Your task to perform on an android device: find which apps use the phone's location Image 0: 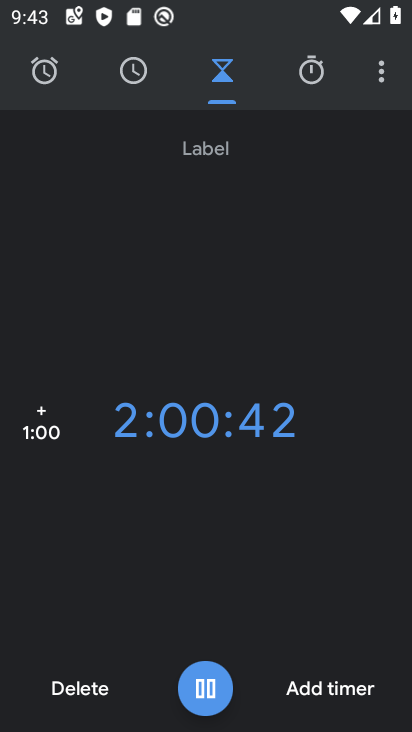
Step 0: press home button
Your task to perform on an android device: find which apps use the phone's location Image 1: 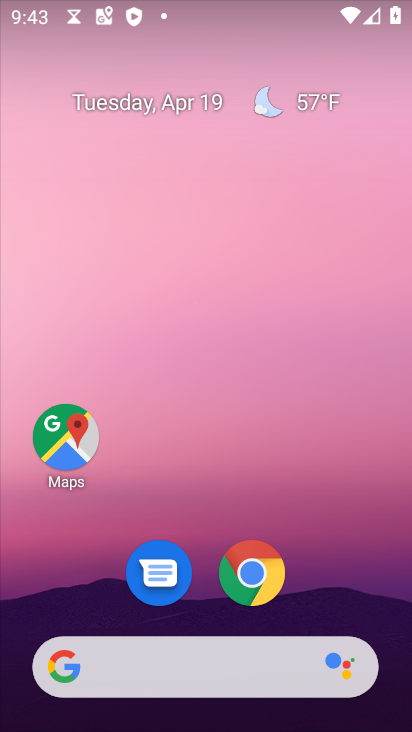
Step 1: drag from (314, 586) to (296, 62)
Your task to perform on an android device: find which apps use the phone's location Image 2: 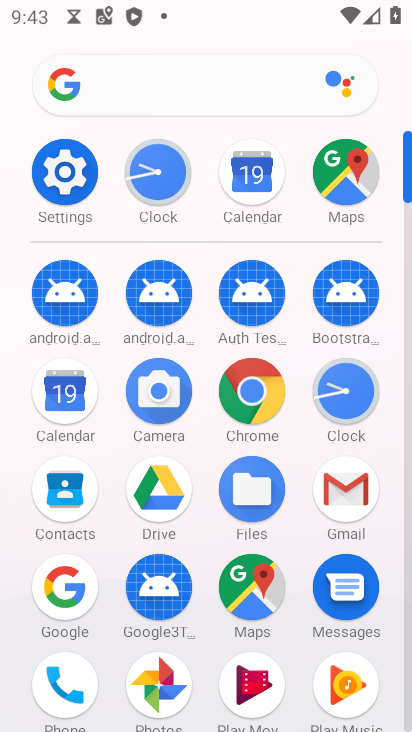
Step 2: click (60, 173)
Your task to perform on an android device: find which apps use the phone's location Image 3: 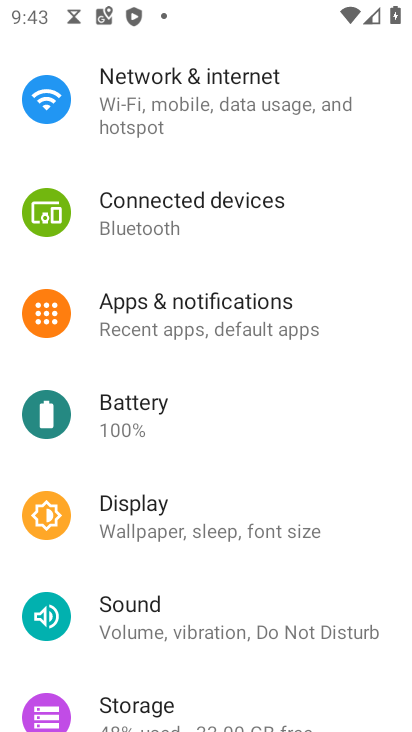
Step 3: drag from (264, 597) to (297, 173)
Your task to perform on an android device: find which apps use the phone's location Image 4: 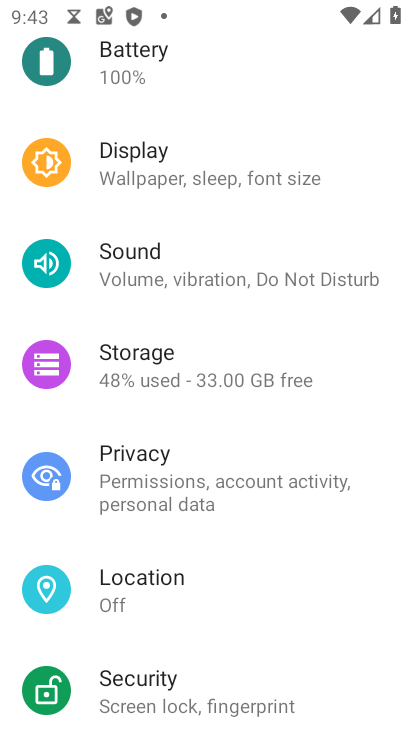
Step 4: click (161, 580)
Your task to perform on an android device: find which apps use the phone's location Image 5: 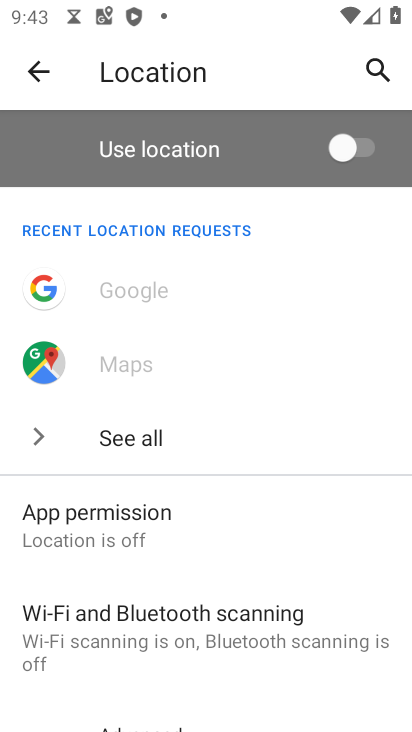
Step 5: click (139, 527)
Your task to perform on an android device: find which apps use the phone's location Image 6: 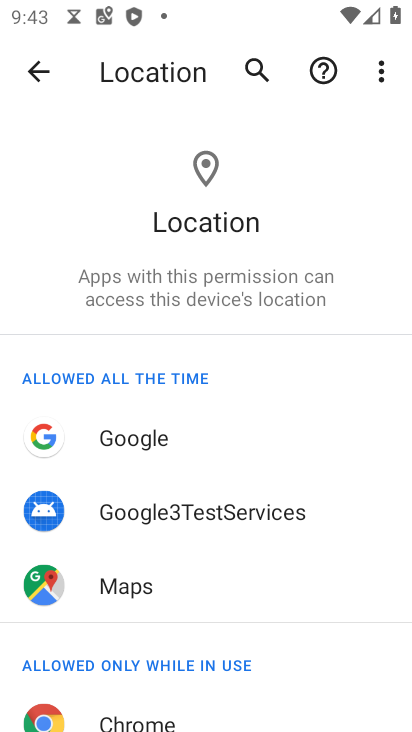
Step 6: task complete